Your task to perform on an android device: star an email in the gmail app Image 0: 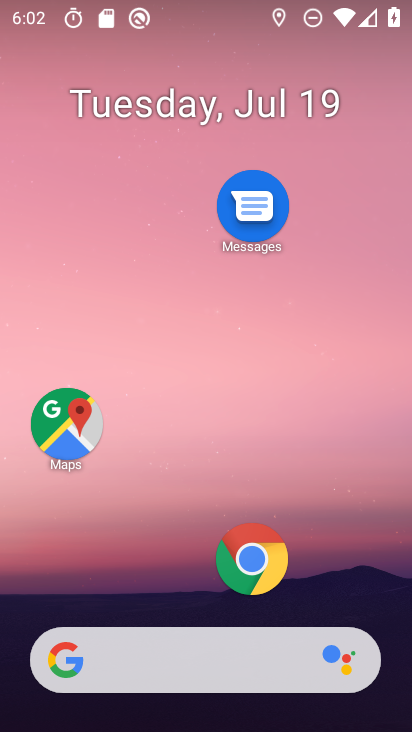
Step 0: drag from (141, 505) to (195, 1)
Your task to perform on an android device: star an email in the gmail app Image 1: 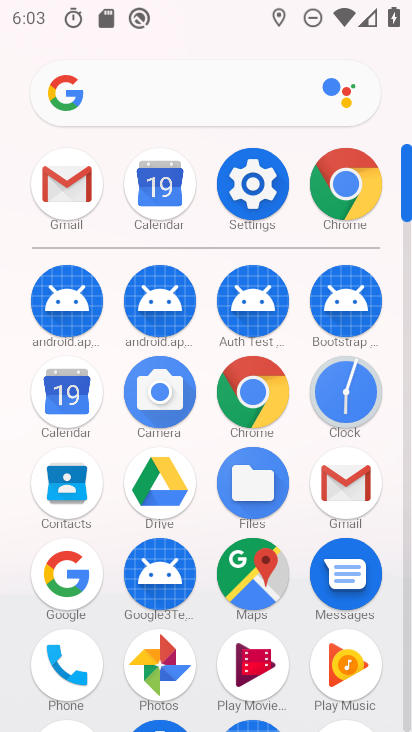
Step 1: click (86, 182)
Your task to perform on an android device: star an email in the gmail app Image 2: 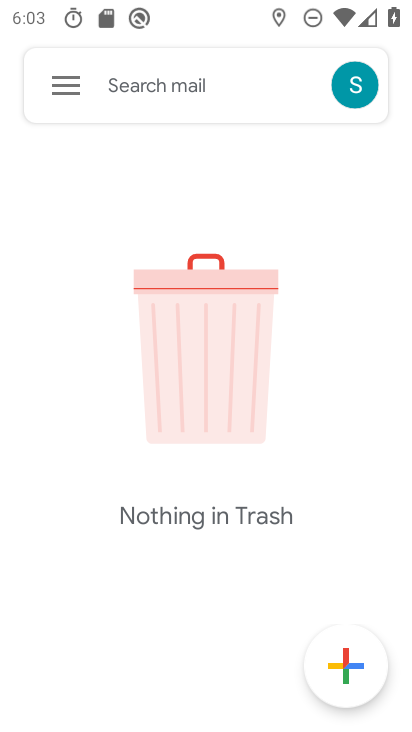
Step 2: click (49, 88)
Your task to perform on an android device: star an email in the gmail app Image 3: 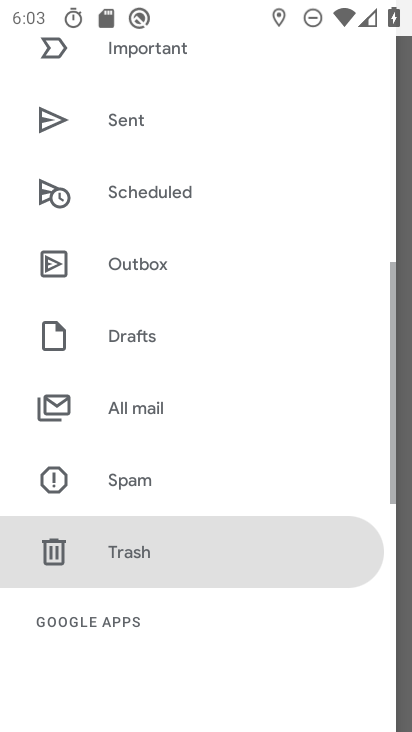
Step 3: click (125, 402)
Your task to perform on an android device: star an email in the gmail app Image 4: 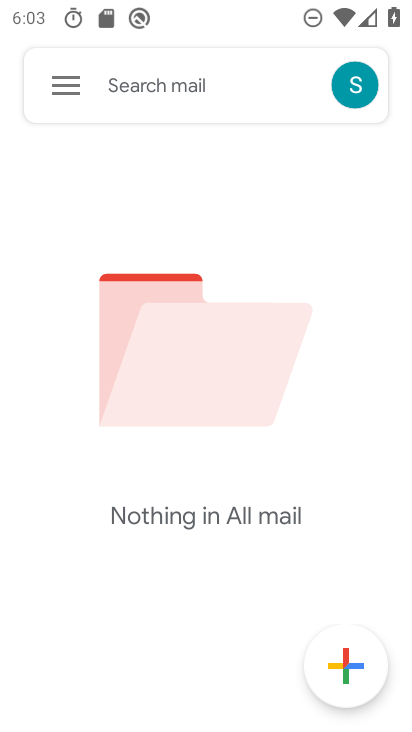
Step 4: task complete